Your task to perform on an android device: What's the weather? Image 0: 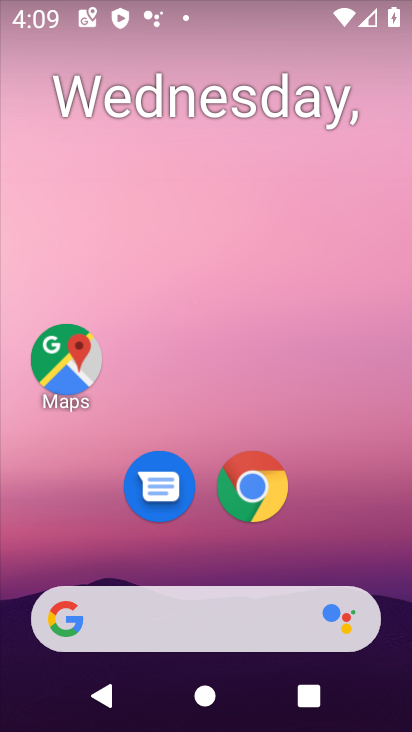
Step 0: drag from (261, 564) to (293, 278)
Your task to perform on an android device: What's the weather? Image 1: 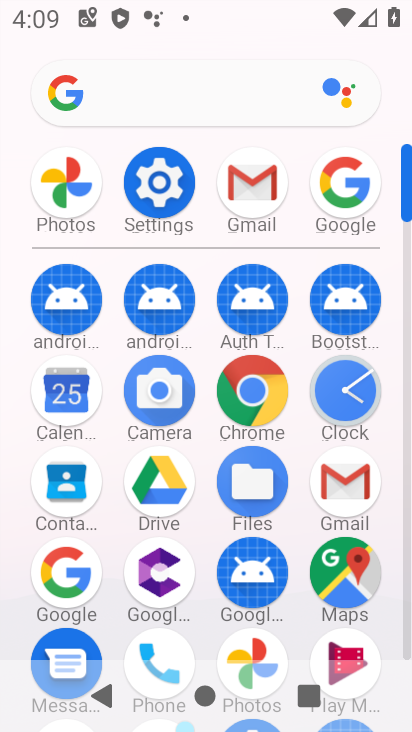
Step 1: click (89, 563)
Your task to perform on an android device: What's the weather? Image 2: 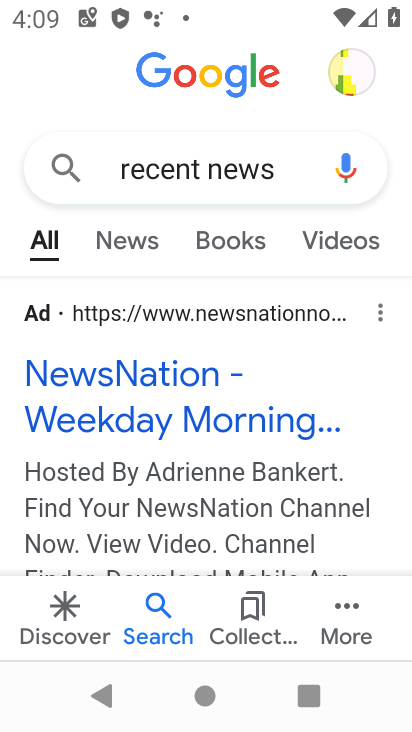
Step 2: click (280, 170)
Your task to perform on an android device: What's the weather? Image 3: 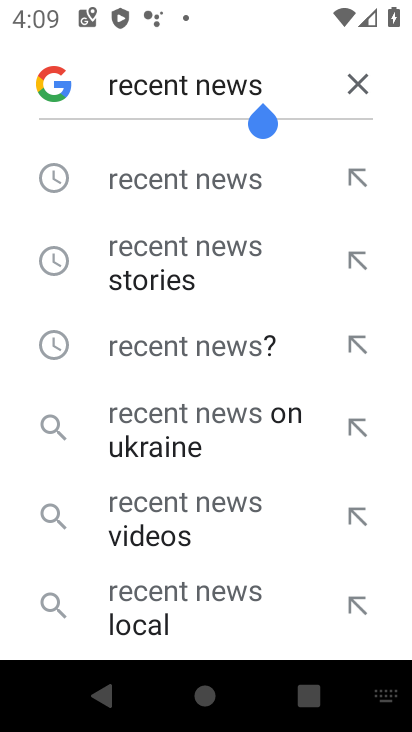
Step 3: click (352, 88)
Your task to perform on an android device: What's the weather? Image 4: 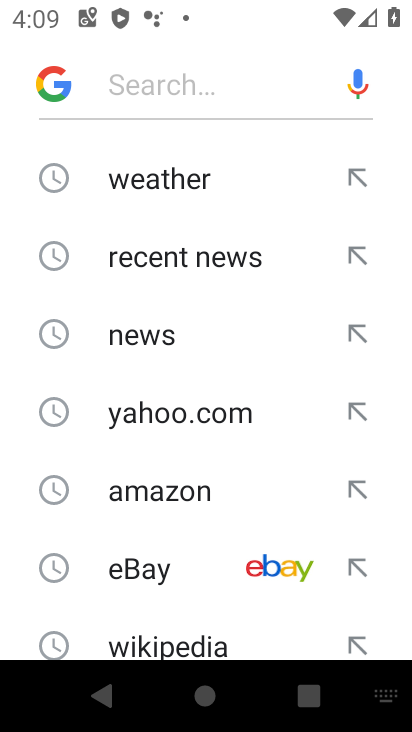
Step 4: click (148, 184)
Your task to perform on an android device: What's the weather? Image 5: 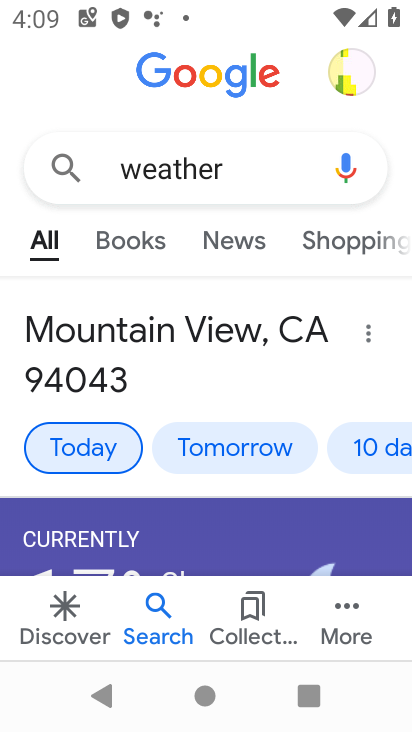
Step 5: task complete